Your task to perform on an android device: turn smart compose on in the gmail app Image 0: 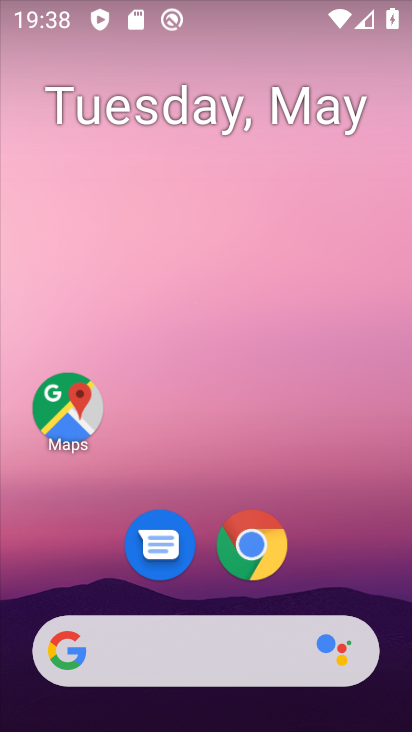
Step 0: drag from (338, 601) to (279, 49)
Your task to perform on an android device: turn smart compose on in the gmail app Image 1: 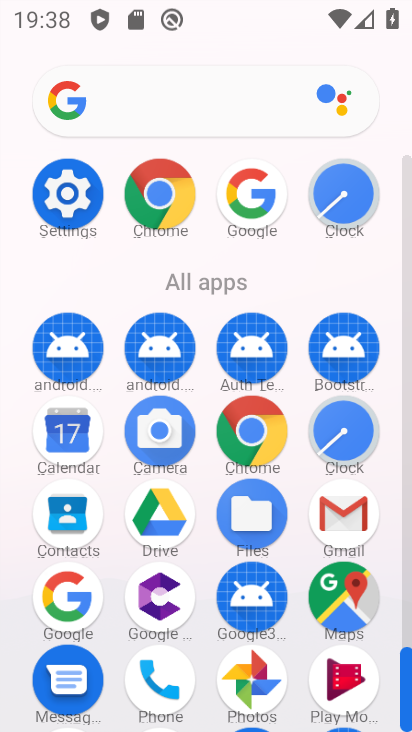
Step 1: click (329, 503)
Your task to perform on an android device: turn smart compose on in the gmail app Image 2: 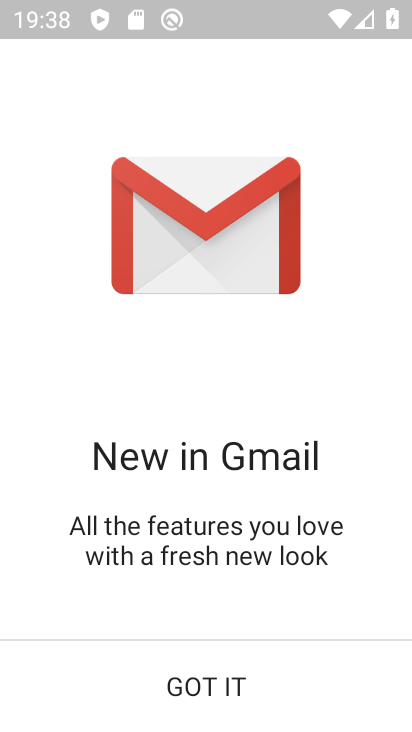
Step 2: click (188, 654)
Your task to perform on an android device: turn smart compose on in the gmail app Image 3: 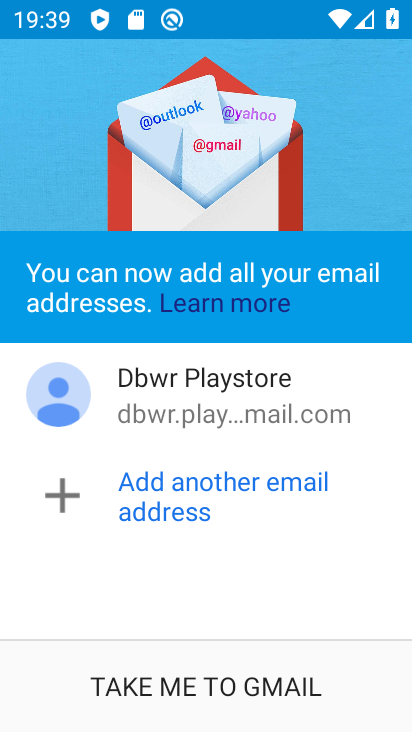
Step 3: click (218, 679)
Your task to perform on an android device: turn smart compose on in the gmail app Image 4: 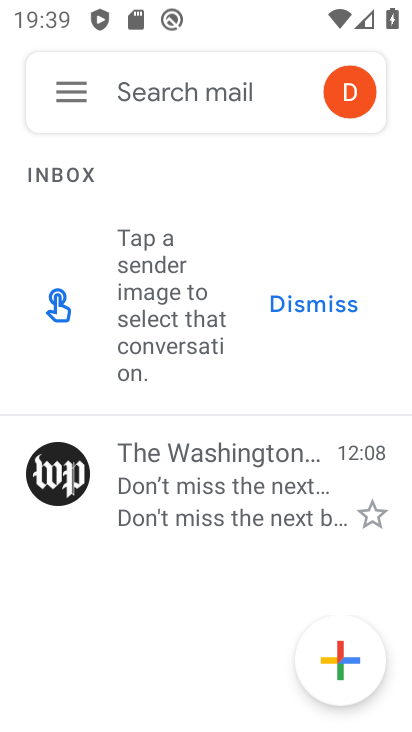
Step 4: click (67, 103)
Your task to perform on an android device: turn smart compose on in the gmail app Image 5: 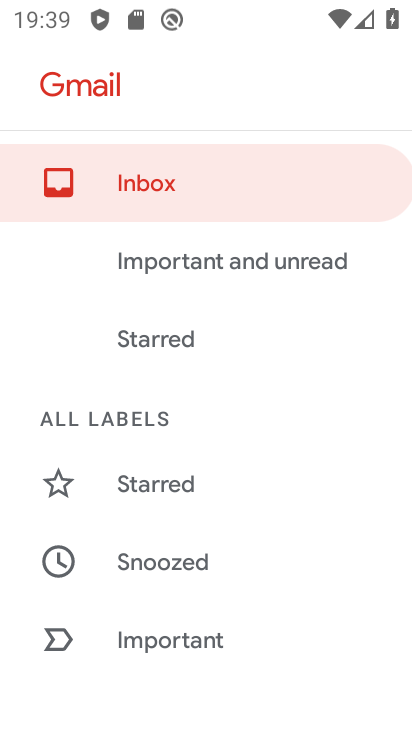
Step 5: drag from (184, 652) to (175, 313)
Your task to perform on an android device: turn smart compose on in the gmail app Image 6: 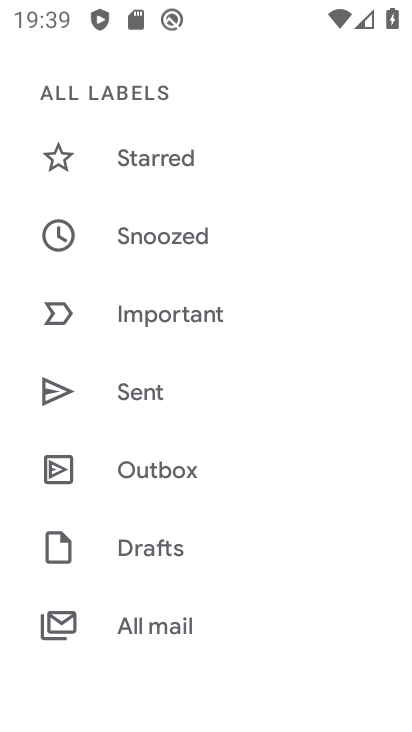
Step 6: drag from (191, 600) to (188, 332)
Your task to perform on an android device: turn smart compose on in the gmail app Image 7: 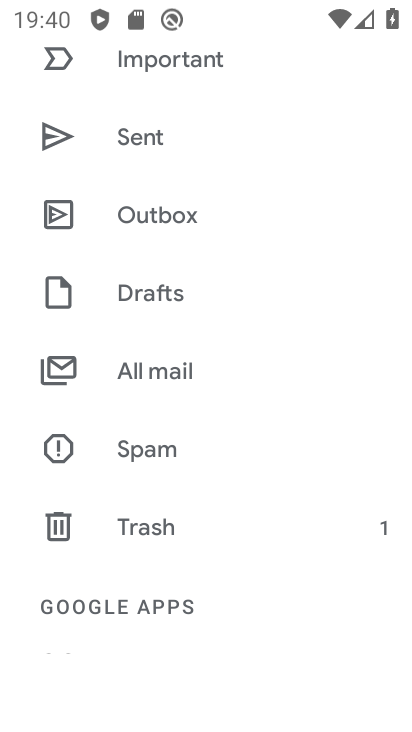
Step 7: drag from (175, 598) to (206, 201)
Your task to perform on an android device: turn smart compose on in the gmail app Image 8: 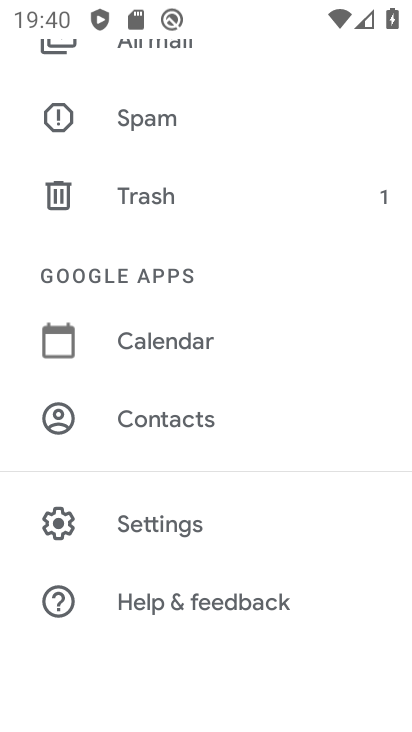
Step 8: click (119, 537)
Your task to perform on an android device: turn smart compose on in the gmail app Image 9: 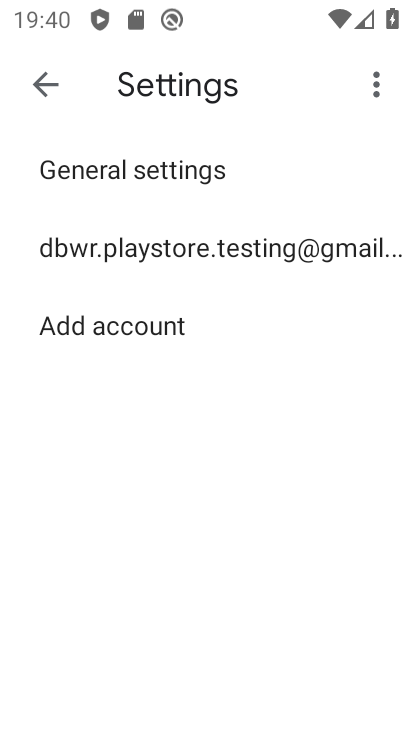
Step 9: click (178, 245)
Your task to perform on an android device: turn smart compose on in the gmail app Image 10: 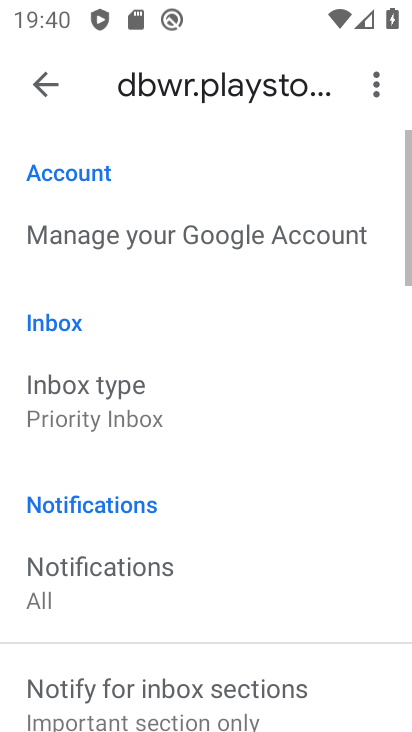
Step 10: task complete